Your task to perform on an android device: open chrome privacy settings Image 0: 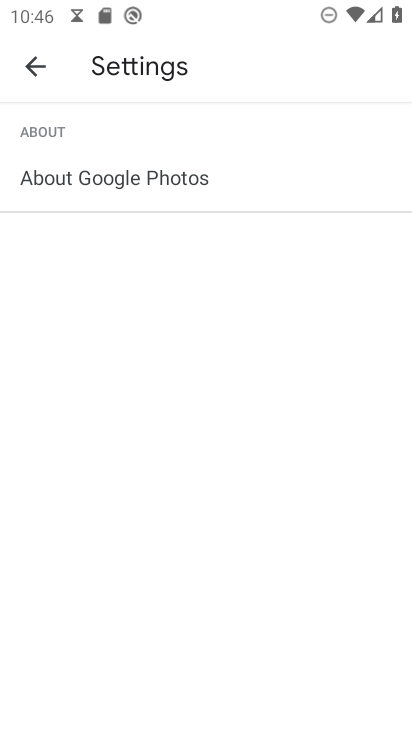
Step 0: press home button
Your task to perform on an android device: open chrome privacy settings Image 1: 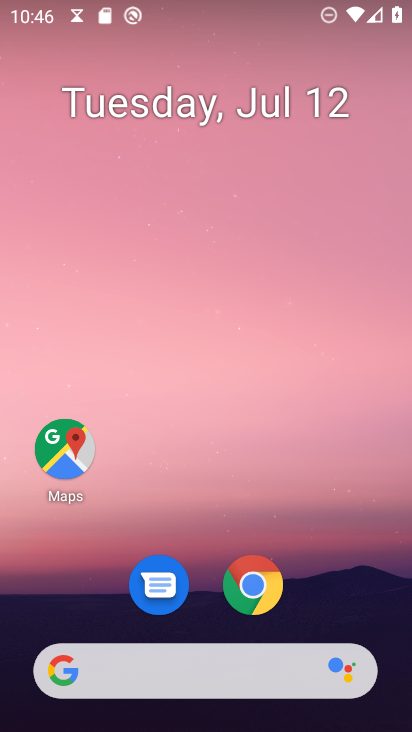
Step 1: click (254, 588)
Your task to perform on an android device: open chrome privacy settings Image 2: 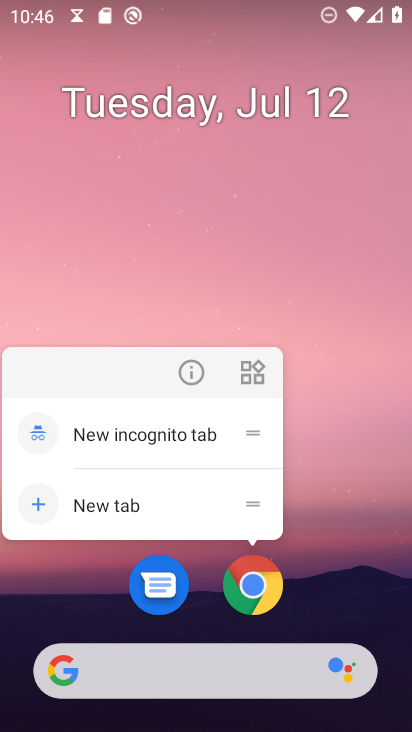
Step 2: click (257, 590)
Your task to perform on an android device: open chrome privacy settings Image 3: 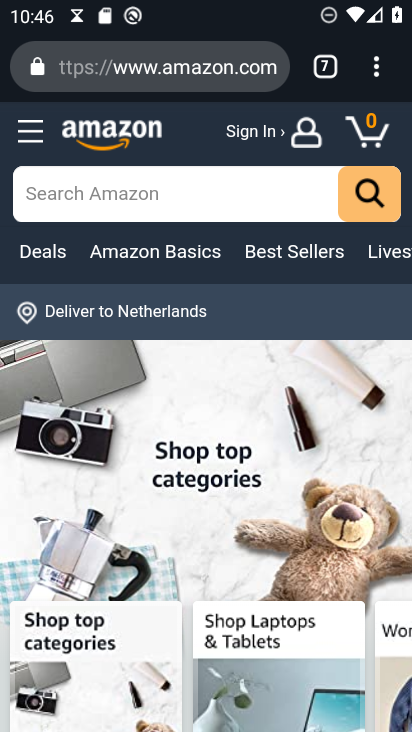
Step 3: drag from (377, 72) to (192, 594)
Your task to perform on an android device: open chrome privacy settings Image 4: 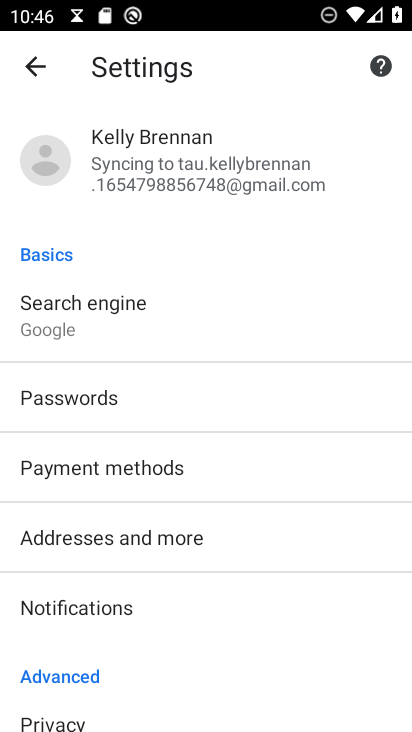
Step 4: drag from (222, 648) to (364, 180)
Your task to perform on an android device: open chrome privacy settings Image 5: 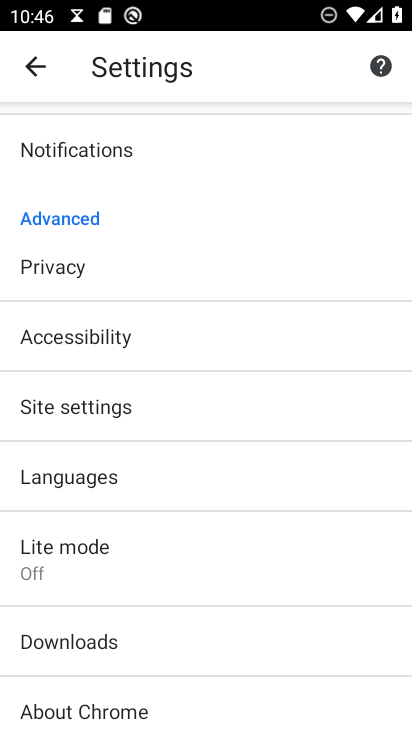
Step 5: click (72, 272)
Your task to perform on an android device: open chrome privacy settings Image 6: 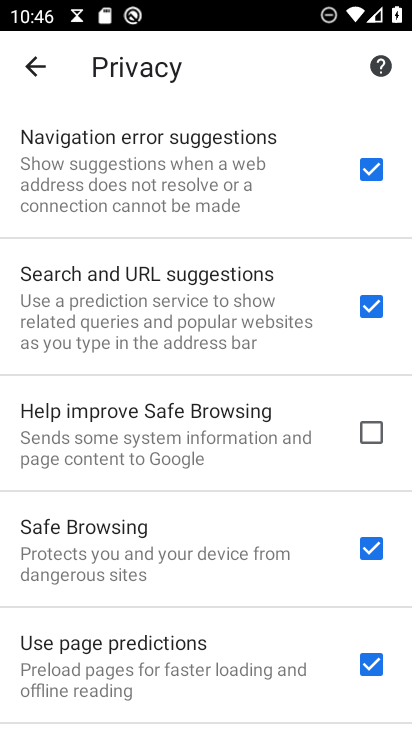
Step 6: task complete